Your task to perform on an android device: change text size in settings app Image 0: 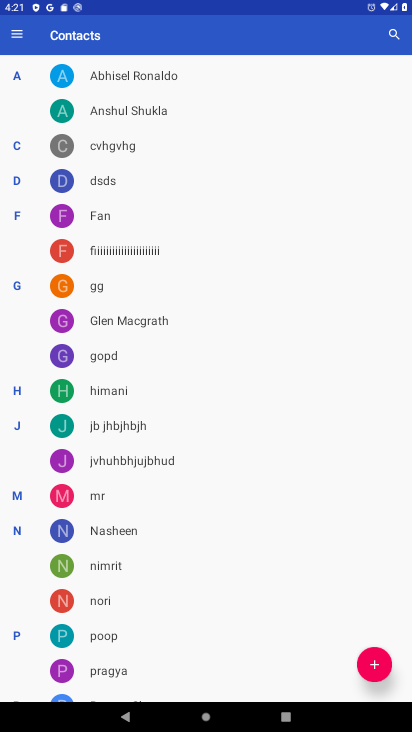
Step 0: press home button
Your task to perform on an android device: change text size in settings app Image 1: 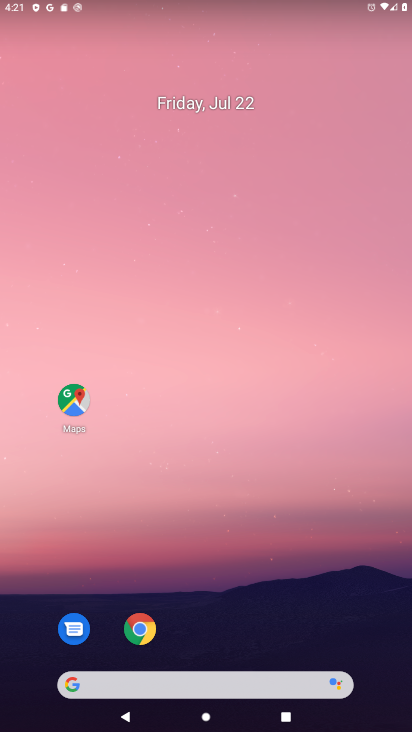
Step 1: drag from (250, 675) to (295, 230)
Your task to perform on an android device: change text size in settings app Image 2: 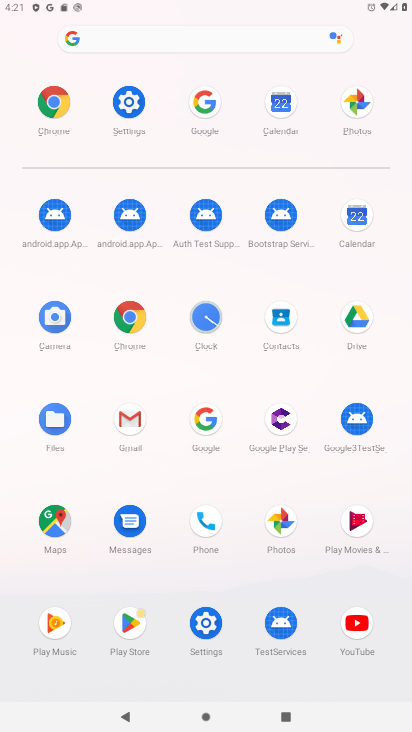
Step 2: click (211, 623)
Your task to perform on an android device: change text size in settings app Image 3: 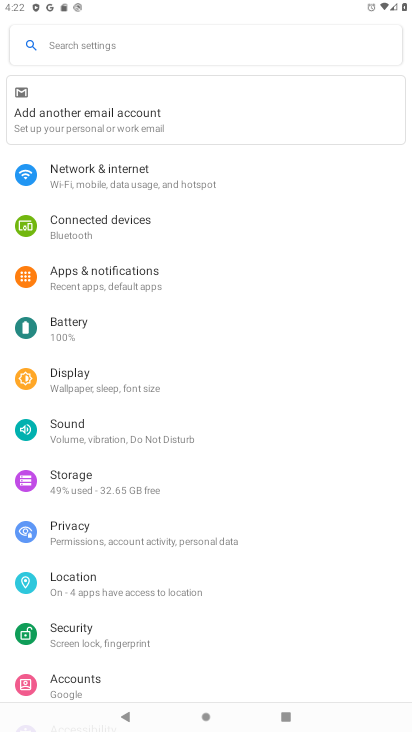
Step 3: drag from (199, 369) to (228, 607)
Your task to perform on an android device: change text size in settings app Image 4: 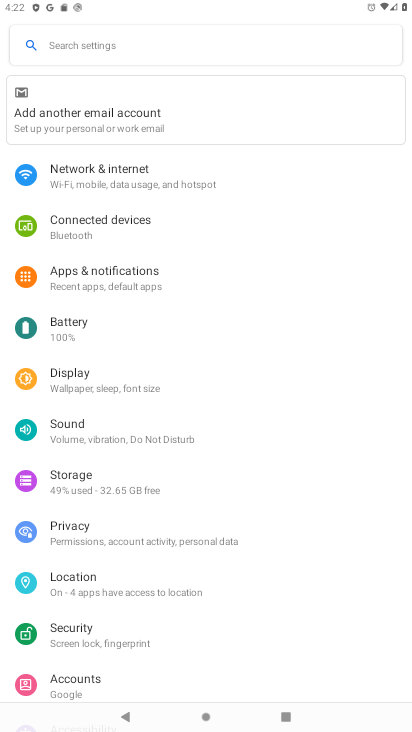
Step 4: click (98, 371)
Your task to perform on an android device: change text size in settings app Image 5: 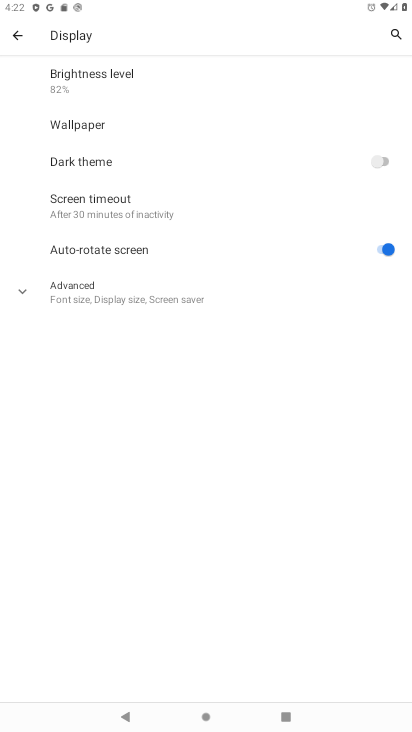
Step 5: click (120, 298)
Your task to perform on an android device: change text size in settings app Image 6: 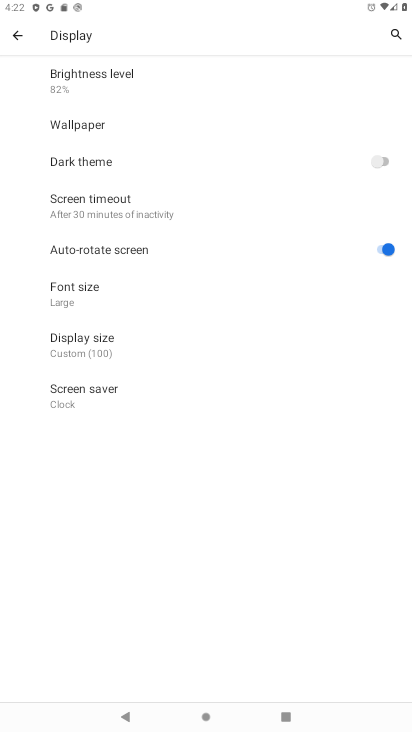
Step 6: click (120, 340)
Your task to perform on an android device: change text size in settings app Image 7: 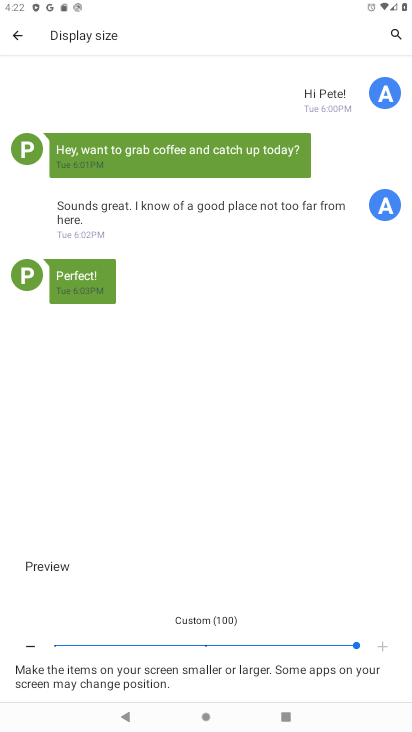
Step 7: click (14, 43)
Your task to perform on an android device: change text size in settings app Image 8: 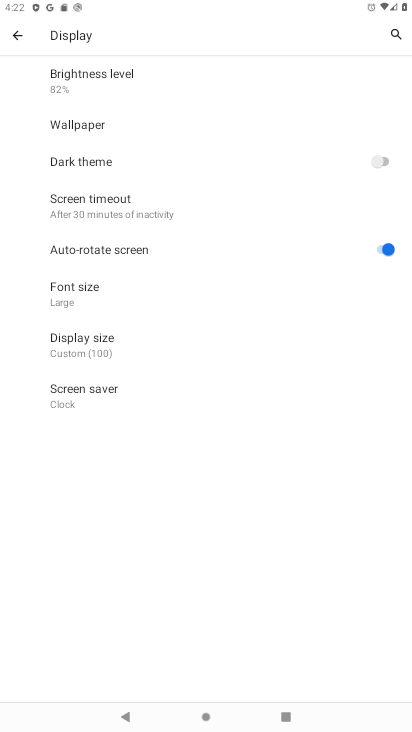
Step 8: click (111, 288)
Your task to perform on an android device: change text size in settings app Image 9: 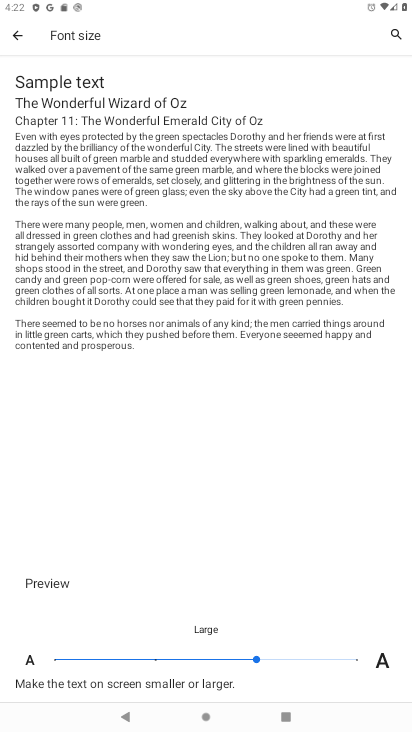
Step 9: click (328, 659)
Your task to perform on an android device: change text size in settings app Image 10: 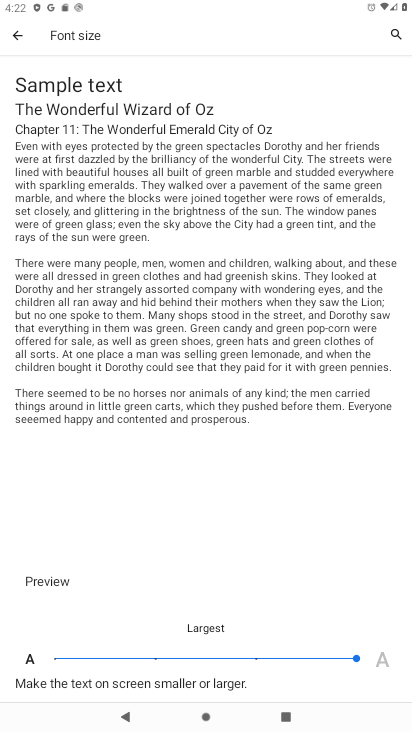
Step 10: task complete